Your task to perform on an android device: Do I have any events this weekend? Image 0: 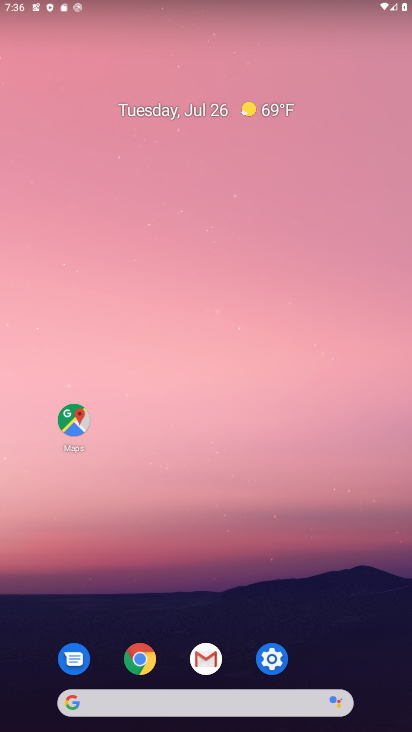
Step 0: drag from (235, 714) to (280, 168)
Your task to perform on an android device: Do I have any events this weekend? Image 1: 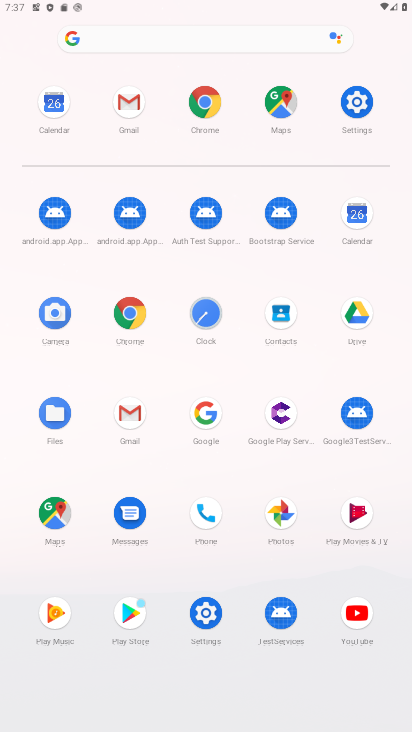
Step 1: click (350, 205)
Your task to perform on an android device: Do I have any events this weekend? Image 2: 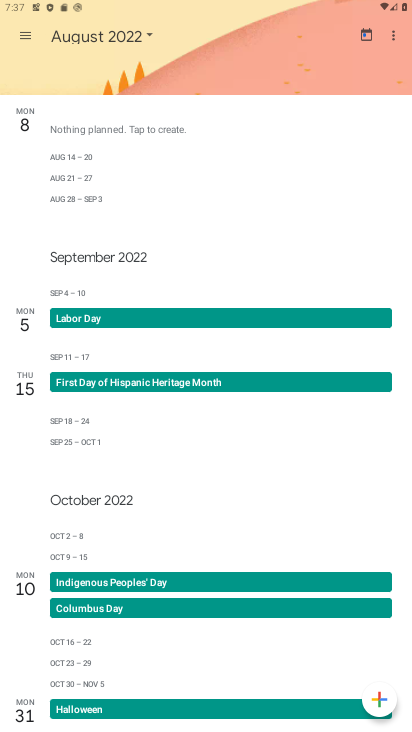
Step 2: click (32, 31)
Your task to perform on an android device: Do I have any events this weekend? Image 3: 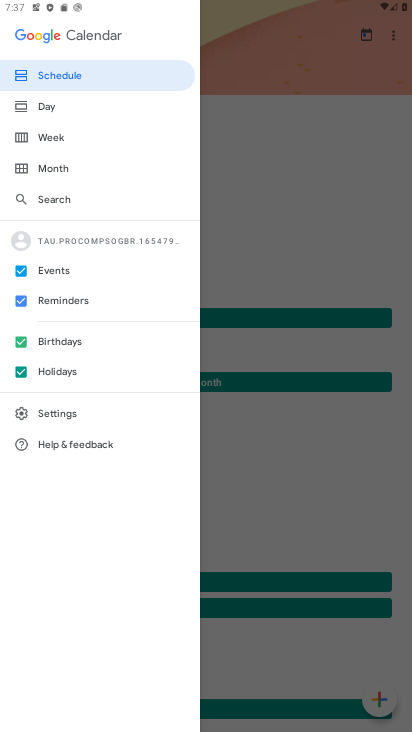
Step 3: click (71, 166)
Your task to perform on an android device: Do I have any events this weekend? Image 4: 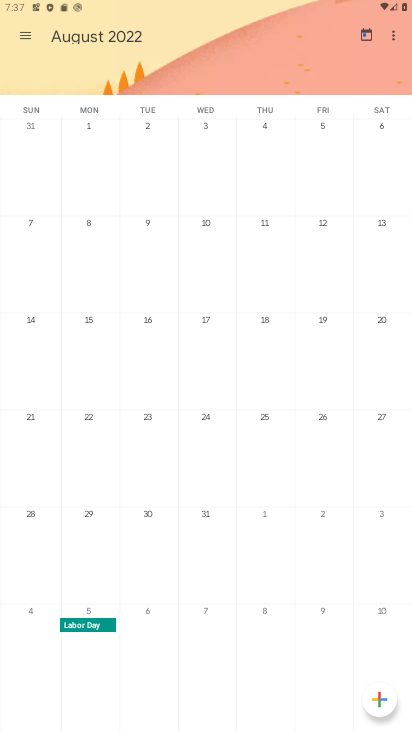
Step 4: drag from (59, 319) to (397, 351)
Your task to perform on an android device: Do I have any events this weekend? Image 5: 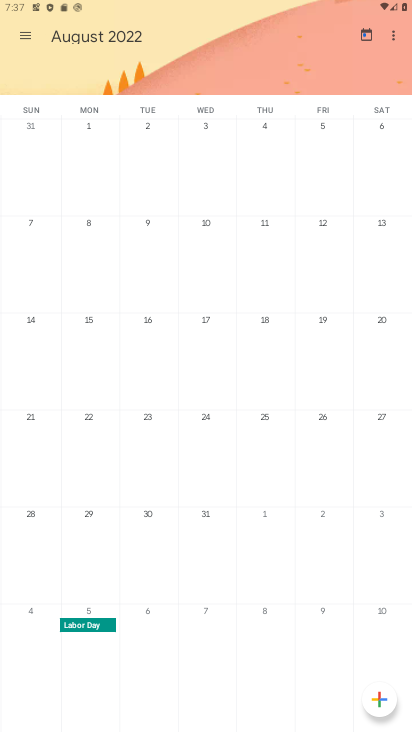
Step 5: drag from (29, 434) to (407, 320)
Your task to perform on an android device: Do I have any events this weekend? Image 6: 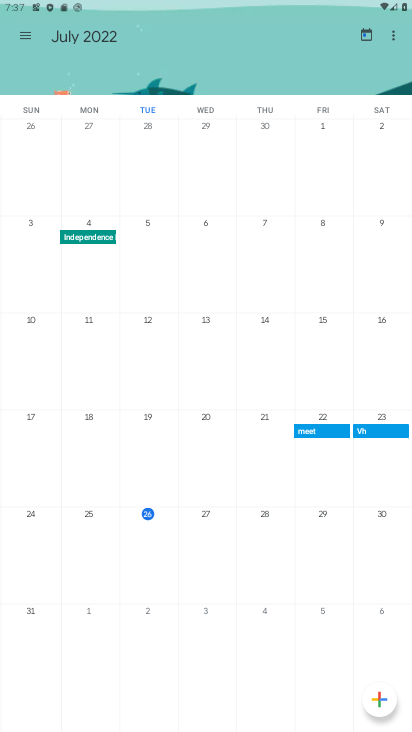
Step 6: click (138, 542)
Your task to perform on an android device: Do I have any events this weekend? Image 7: 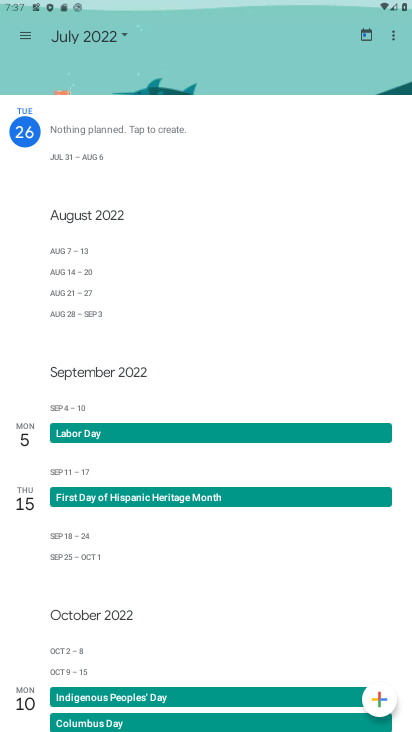
Step 7: task complete